Your task to perform on an android device: Show me popular videos on Youtube Image 0: 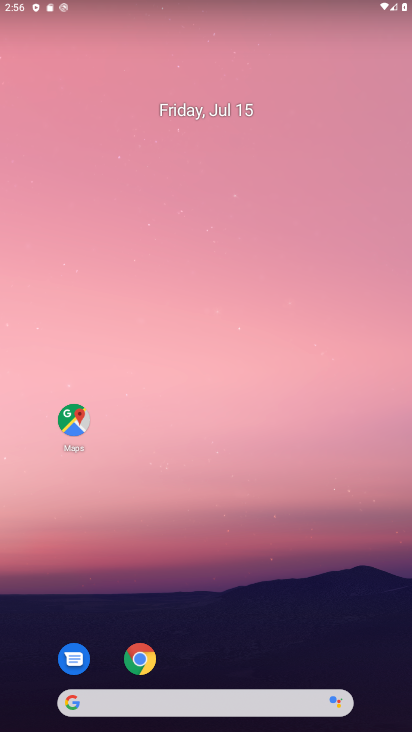
Step 0: click (296, 257)
Your task to perform on an android device: Show me popular videos on Youtube Image 1: 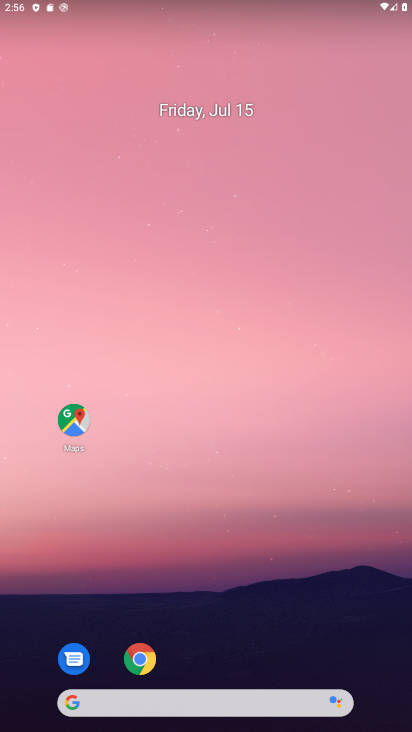
Step 1: drag from (205, 622) to (236, 302)
Your task to perform on an android device: Show me popular videos on Youtube Image 2: 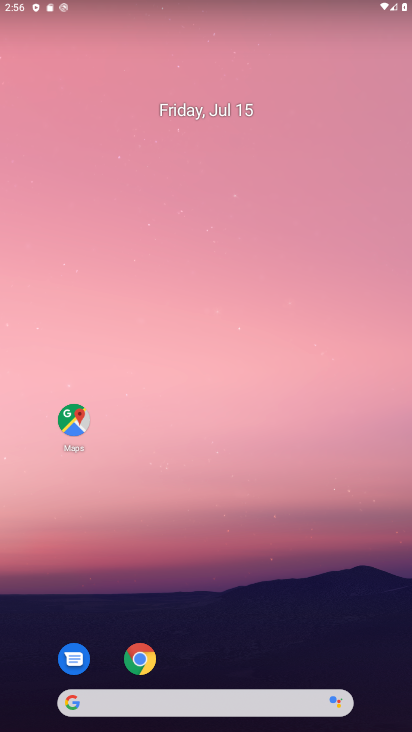
Step 2: drag from (225, 666) to (232, 262)
Your task to perform on an android device: Show me popular videos on Youtube Image 3: 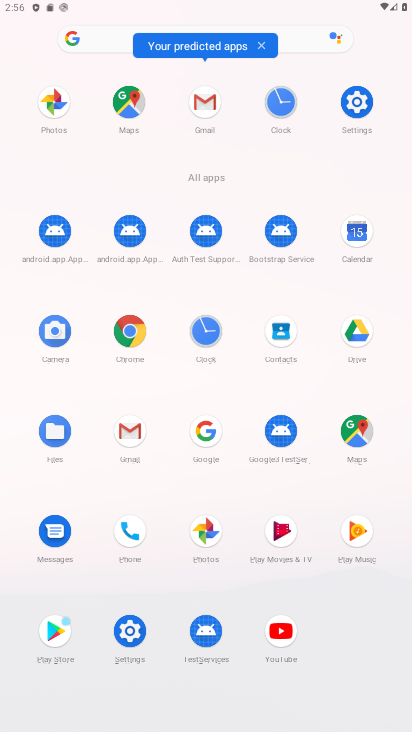
Step 3: click (284, 622)
Your task to perform on an android device: Show me popular videos on Youtube Image 4: 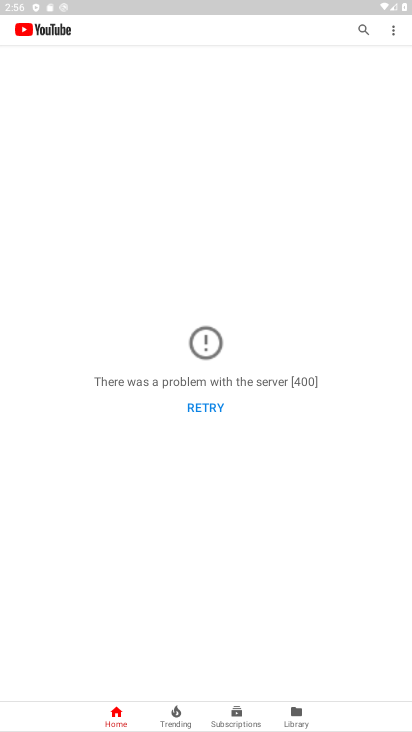
Step 4: click (295, 448)
Your task to perform on an android device: Show me popular videos on Youtube Image 5: 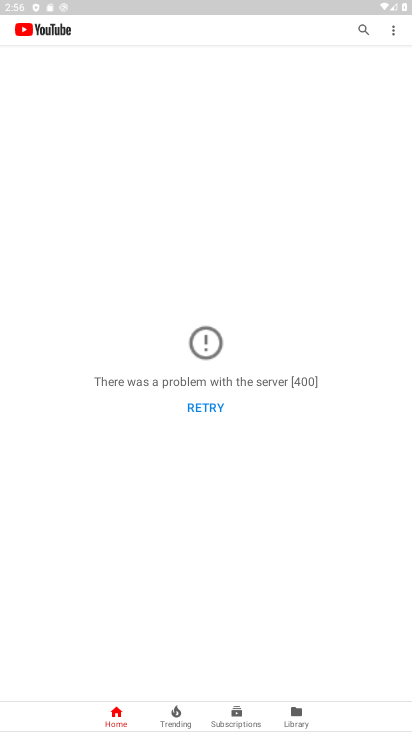
Step 5: task complete